Your task to perform on an android device: Open Google Chrome Image 0: 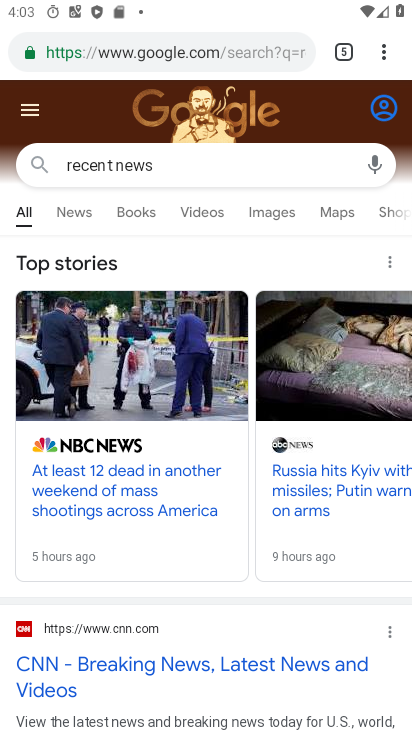
Step 0: press home button
Your task to perform on an android device: Open Google Chrome Image 1: 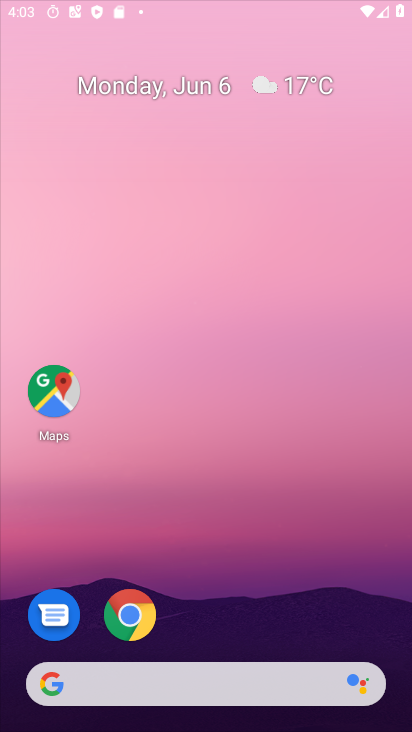
Step 1: click (324, 0)
Your task to perform on an android device: Open Google Chrome Image 2: 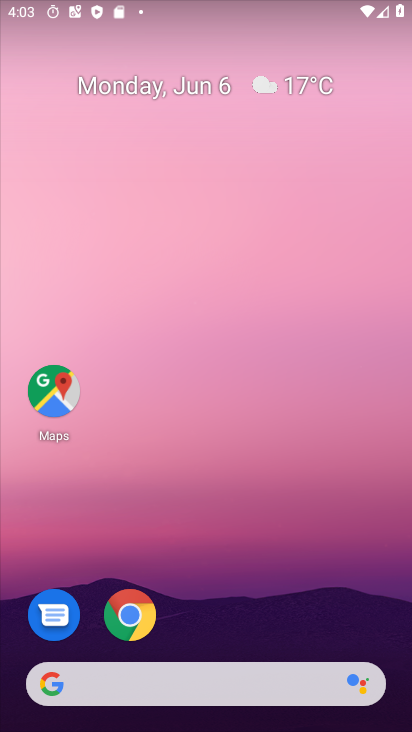
Step 2: drag from (299, 515) to (314, 48)
Your task to perform on an android device: Open Google Chrome Image 3: 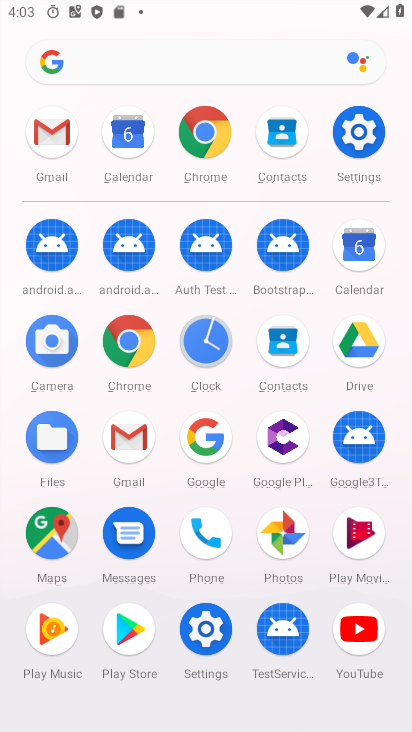
Step 3: click (140, 350)
Your task to perform on an android device: Open Google Chrome Image 4: 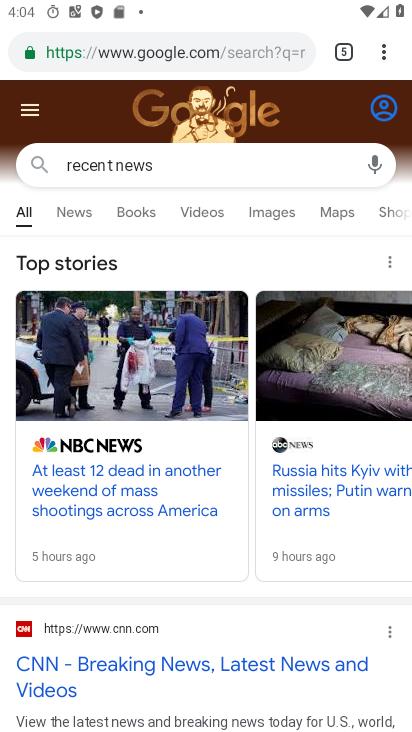
Step 4: task complete